Your task to perform on an android device: add a contact in the contacts app Image 0: 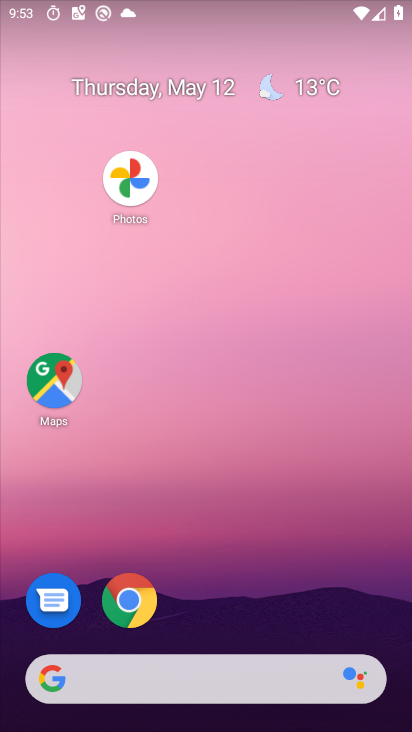
Step 0: press back button
Your task to perform on an android device: add a contact in the contacts app Image 1: 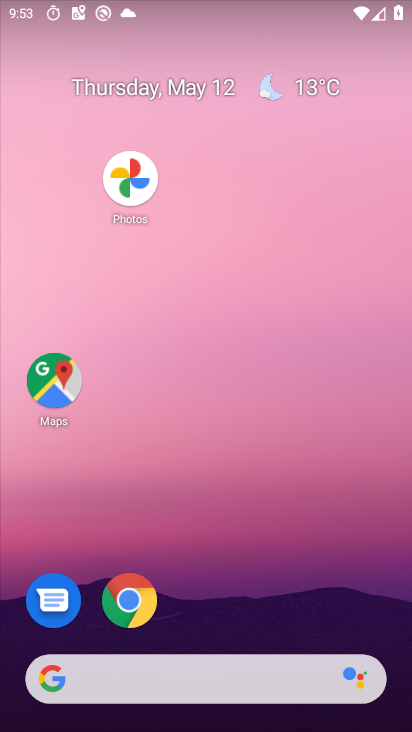
Step 1: click (217, 650)
Your task to perform on an android device: add a contact in the contacts app Image 2: 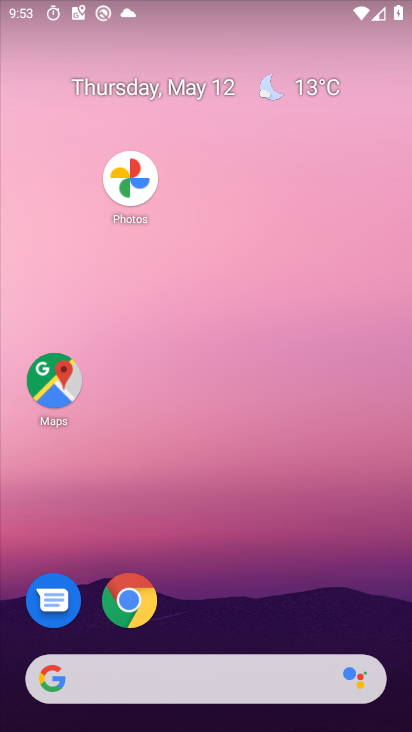
Step 2: click (266, 672)
Your task to perform on an android device: add a contact in the contacts app Image 3: 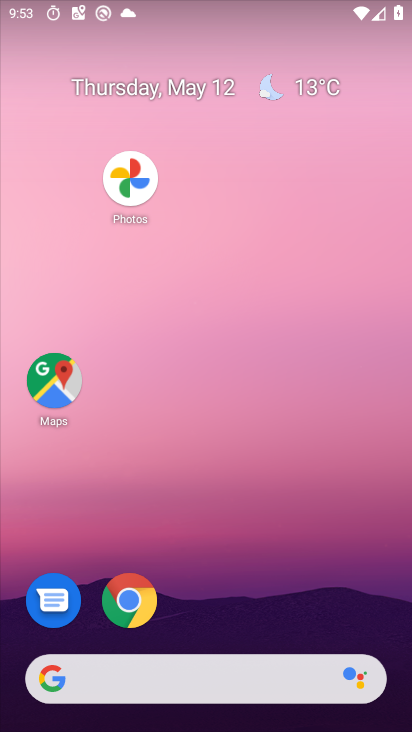
Step 3: press back button
Your task to perform on an android device: add a contact in the contacts app Image 4: 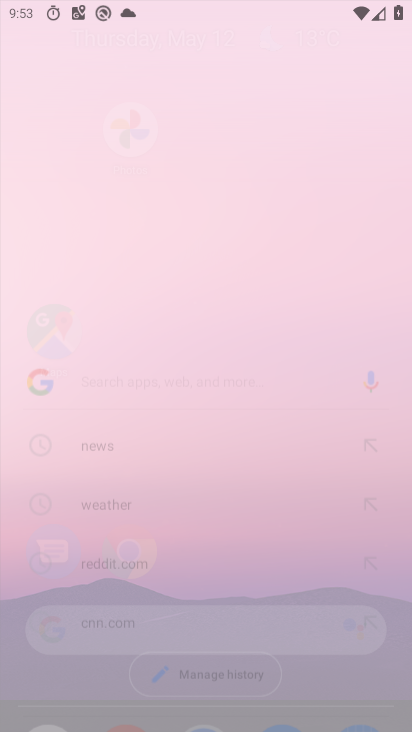
Step 4: press back button
Your task to perform on an android device: add a contact in the contacts app Image 5: 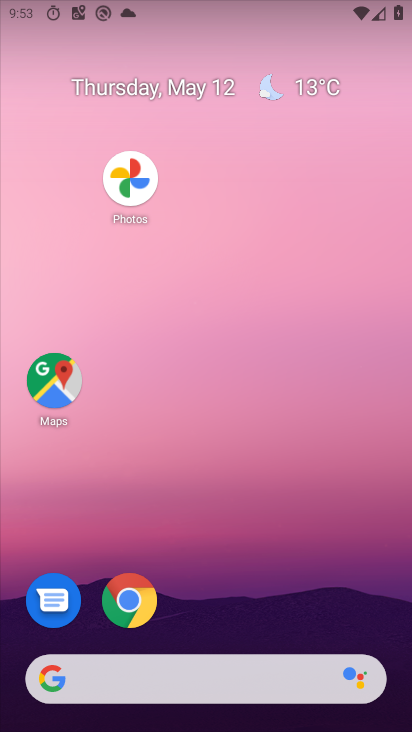
Step 5: press home button
Your task to perform on an android device: add a contact in the contacts app Image 6: 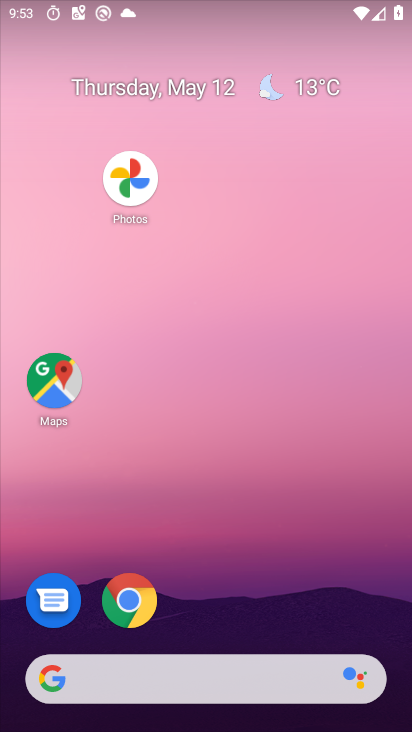
Step 6: press back button
Your task to perform on an android device: add a contact in the contacts app Image 7: 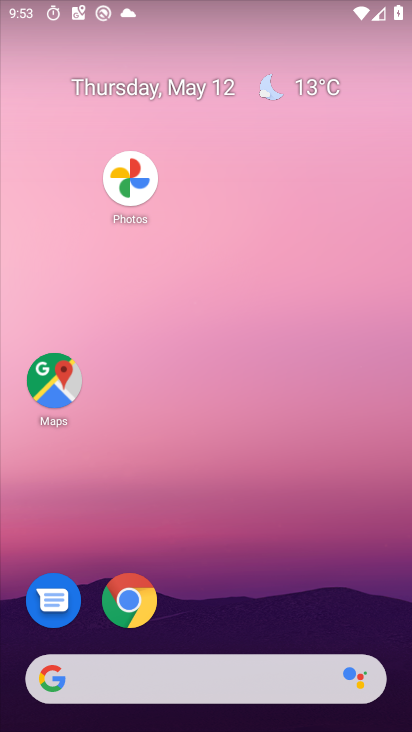
Step 7: click (263, 412)
Your task to perform on an android device: add a contact in the contacts app Image 8: 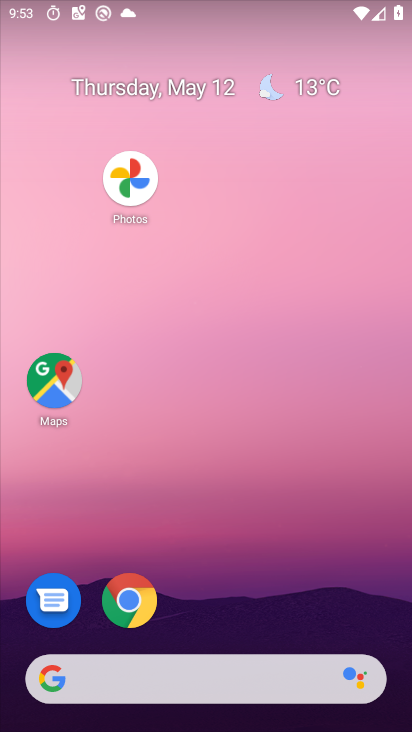
Step 8: drag from (215, 456) to (147, 190)
Your task to perform on an android device: add a contact in the contacts app Image 9: 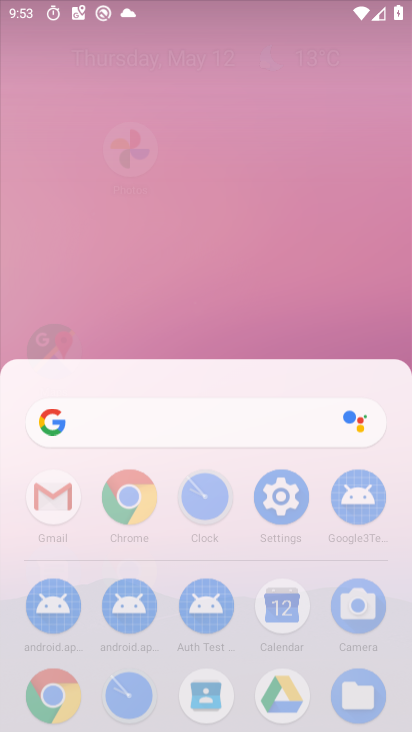
Step 9: drag from (254, 508) to (103, 155)
Your task to perform on an android device: add a contact in the contacts app Image 10: 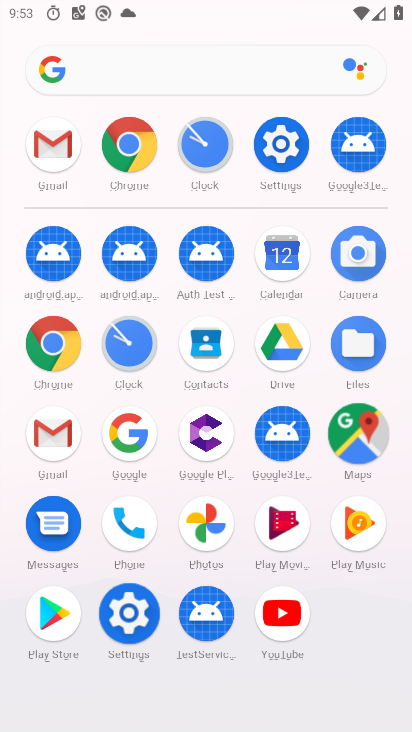
Step 10: click (351, 260)
Your task to perform on an android device: add a contact in the contacts app Image 11: 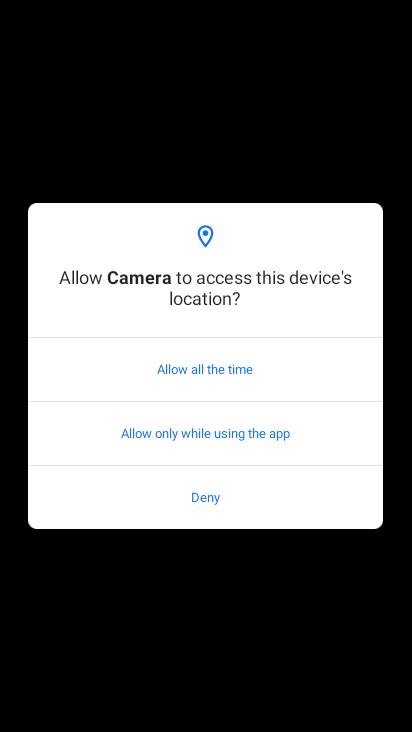
Step 11: press back button
Your task to perform on an android device: add a contact in the contacts app Image 12: 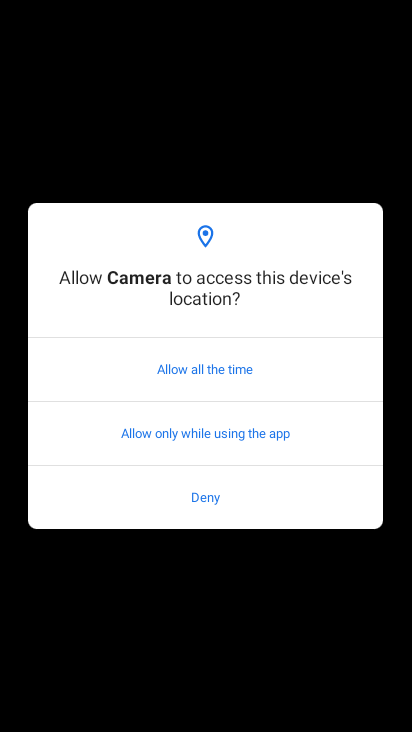
Step 12: press back button
Your task to perform on an android device: add a contact in the contacts app Image 13: 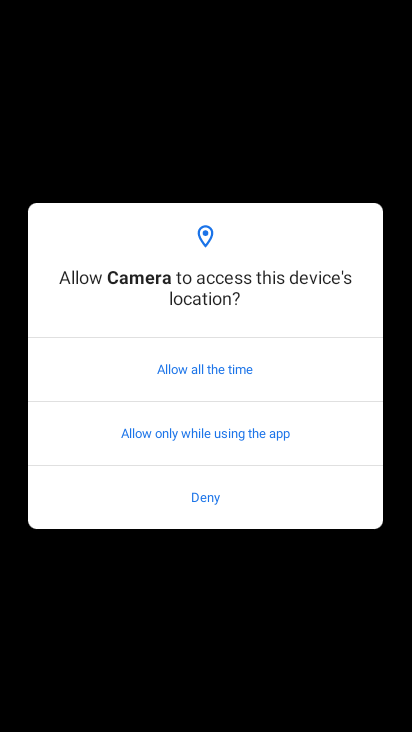
Step 13: press back button
Your task to perform on an android device: add a contact in the contacts app Image 14: 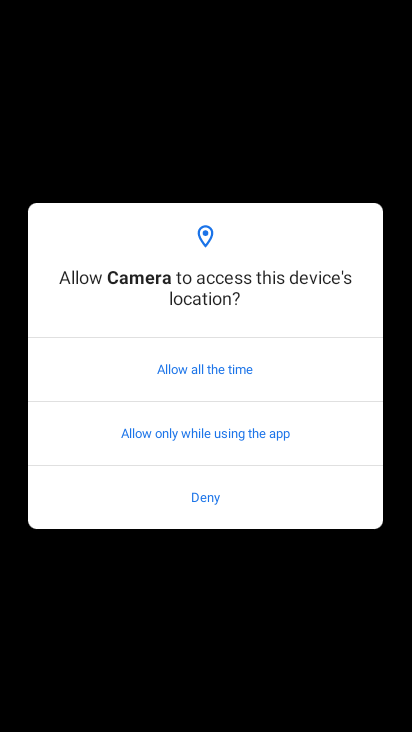
Step 14: press back button
Your task to perform on an android device: add a contact in the contacts app Image 15: 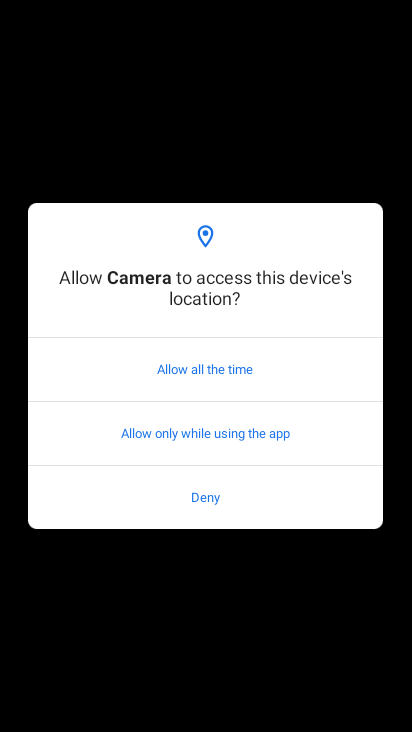
Step 15: press back button
Your task to perform on an android device: add a contact in the contacts app Image 16: 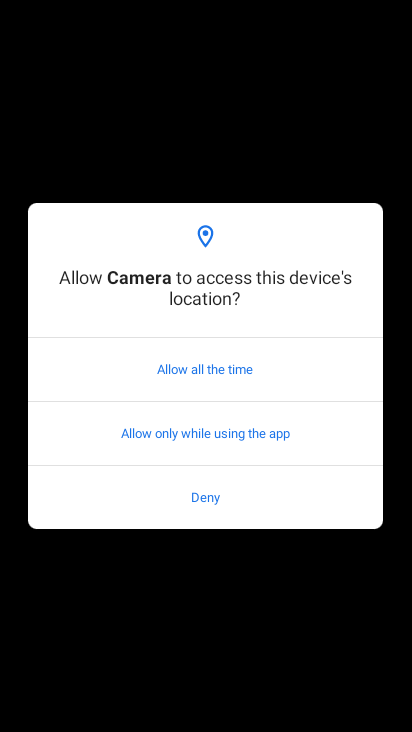
Step 16: press back button
Your task to perform on an android device: add a contact in the contacts app Image 17: 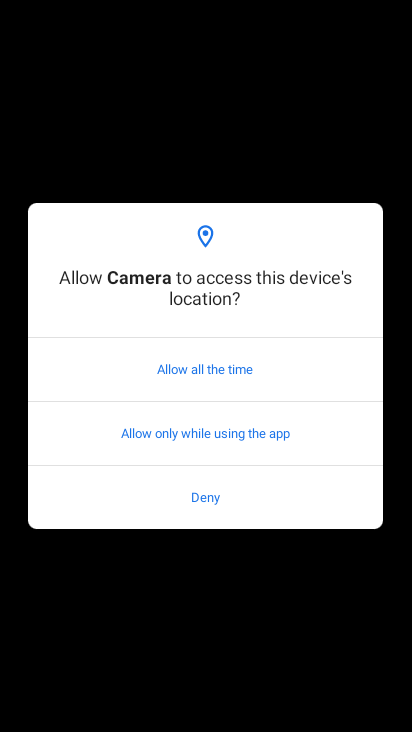
Step 17: press home button
Your task to perform on an android device: add a contact in the contacts app Image 18: 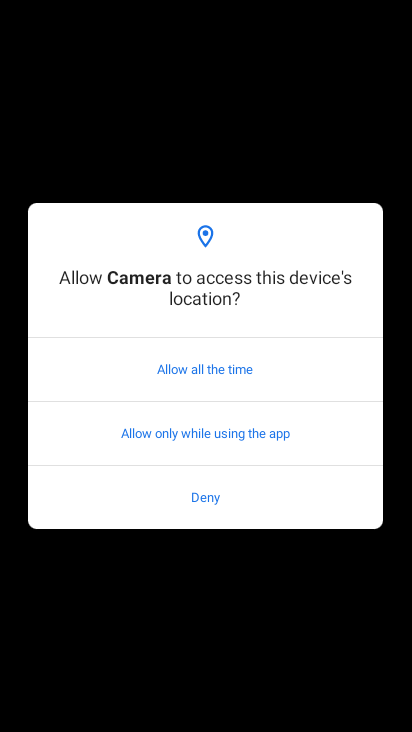
Step 18: press home button
Your task to perform on an android device: add a contact in the contacts app Image 19: 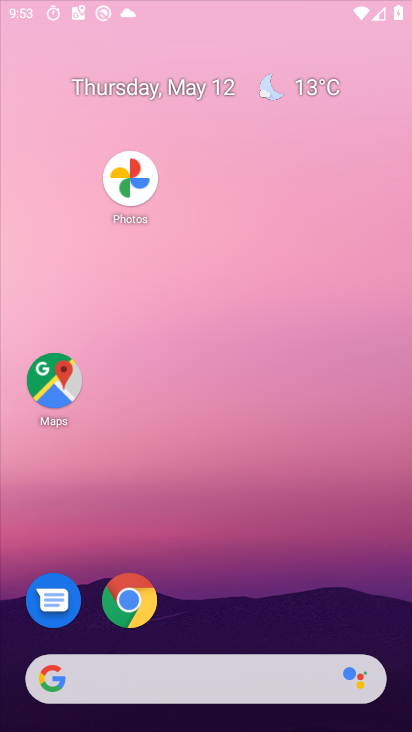
Step 19: press home button
Your task to perform on an android device: add a contact in the contacts app Image 20: 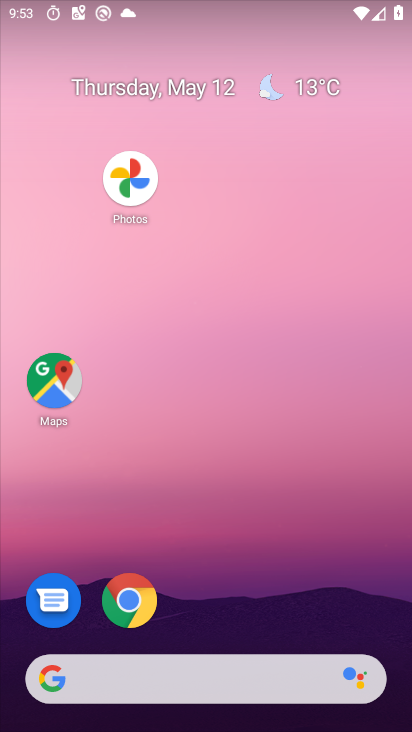
Step 20: drag from (292, 584) to (166, 35)
Your task to perform on an android device: add a contact in the contacts app Image 21: 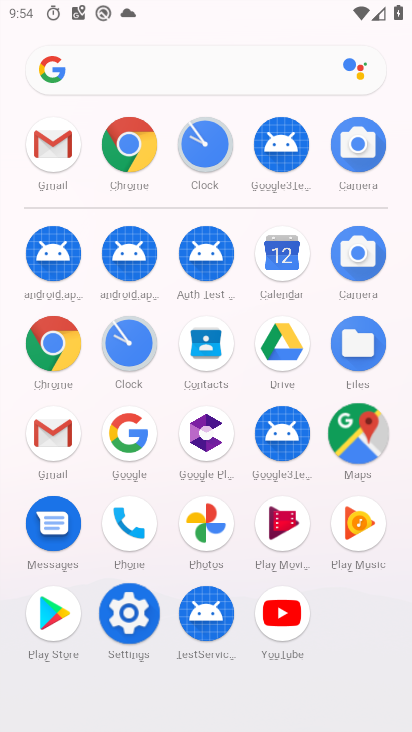
Step 21: click (204, 340)
Your task to perform on an android device: add a contact in the contacts app Image 22: 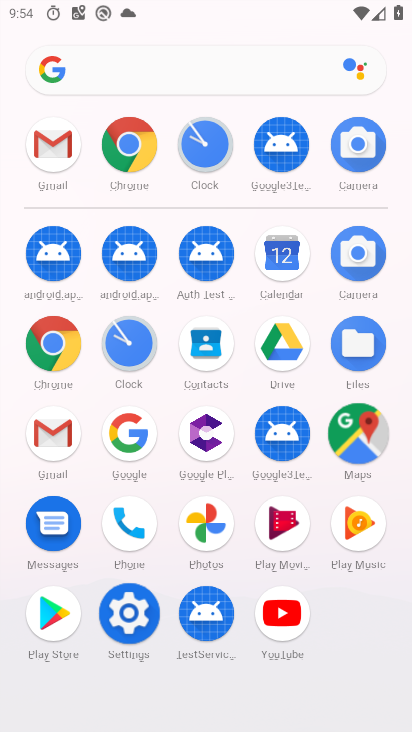
Step 22: click (204, 340)
Your task to perform on an android device: add a contact in the contacts app Image 23: 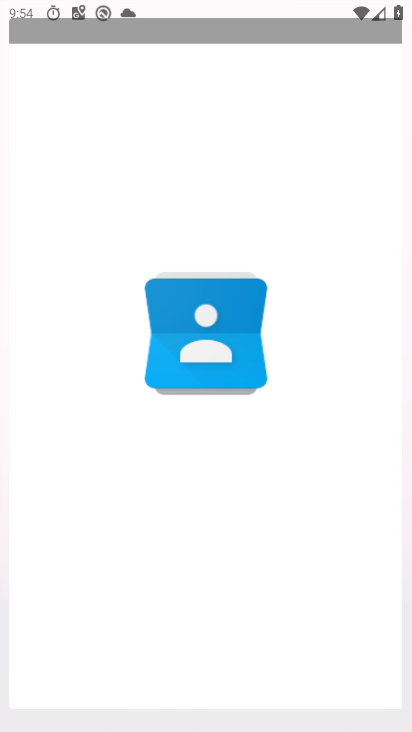
Step 23: click (203, 341)
Your task to perform on an android device: add a contact in the contacts app Image 24: 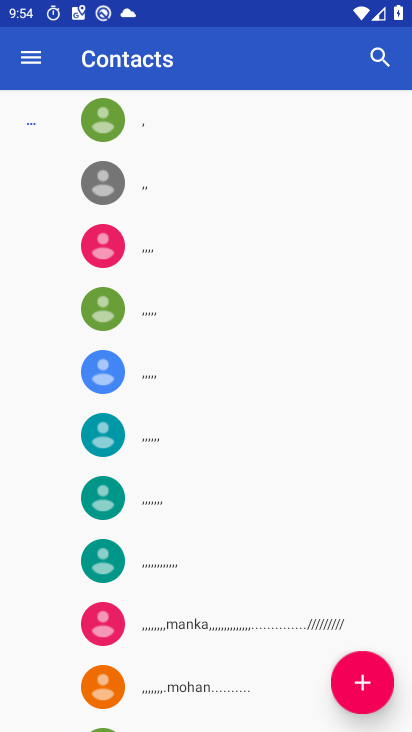
Step 24: click (364, 681)
Your task to perform on an android device: add a contact in the contacts app Image 25: 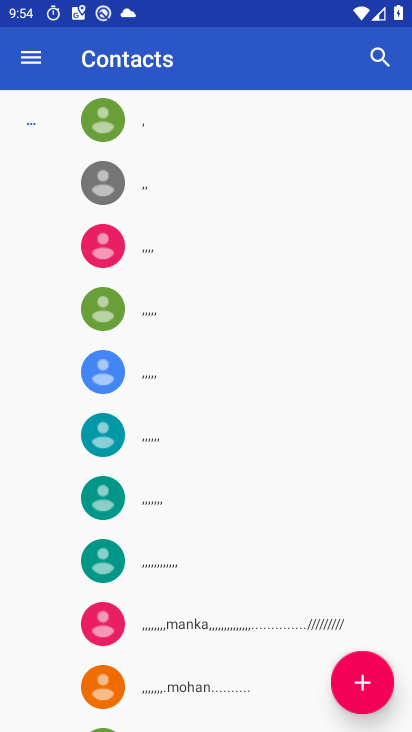
Step 25: click (365, 680)
Your task to perform on an android device: add a contact in the contacts app Image 26: 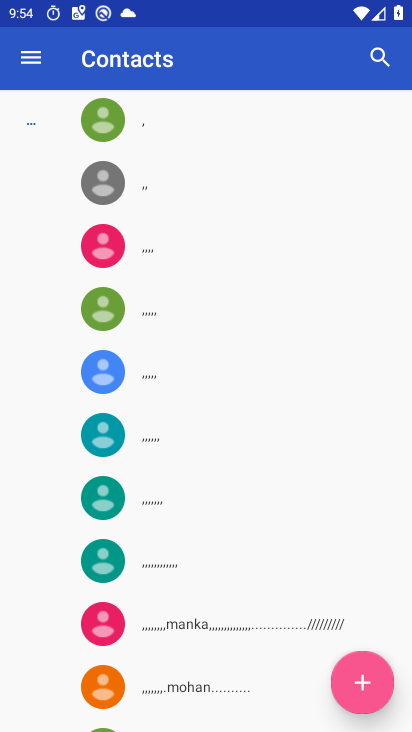
Step 26: click (364, 679)
Your task to perform on an android device: add a contact in the contacts app Image 27: 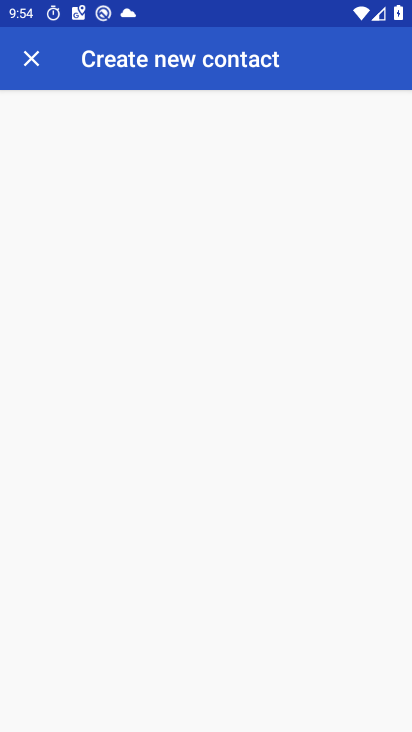
Step 27: click (363, 678)
Your task to perform on an android device: add a contact in the contacts app Image 28: 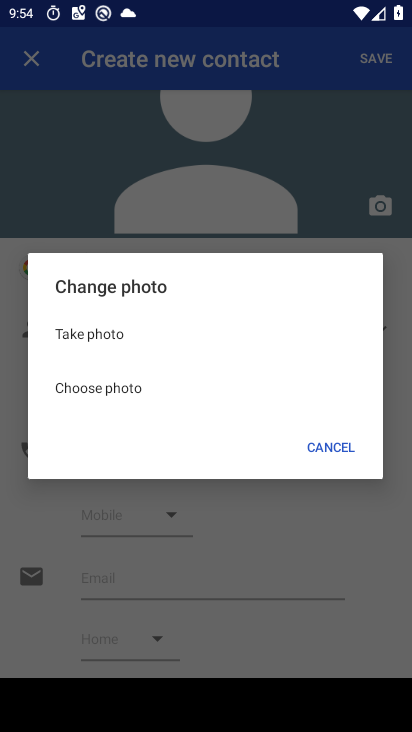
Step 28: click (362, 682)
Your task to perform on an android device: add a contact in the contacts app Image 29: 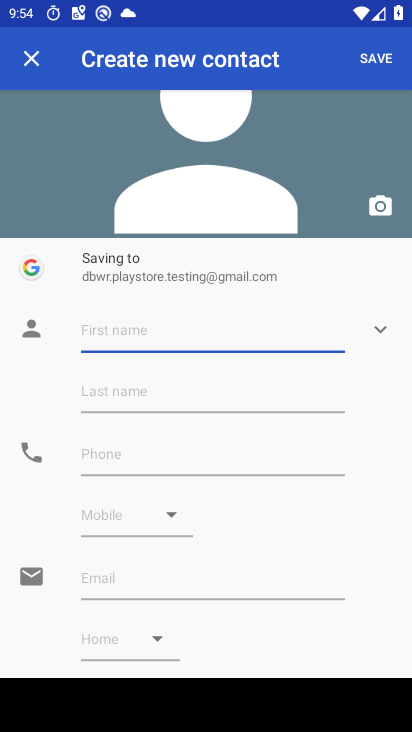
Step 29: type "guysyguau"
Your task to perform on an android device: add a contact in the contacts app Image 30: 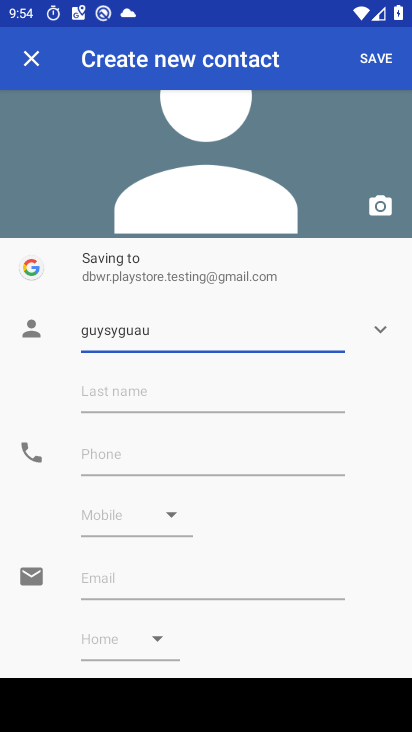
Step 30: click (105, 455)
Your task to perform on an android device: add a contact in the contacts app Image 31: 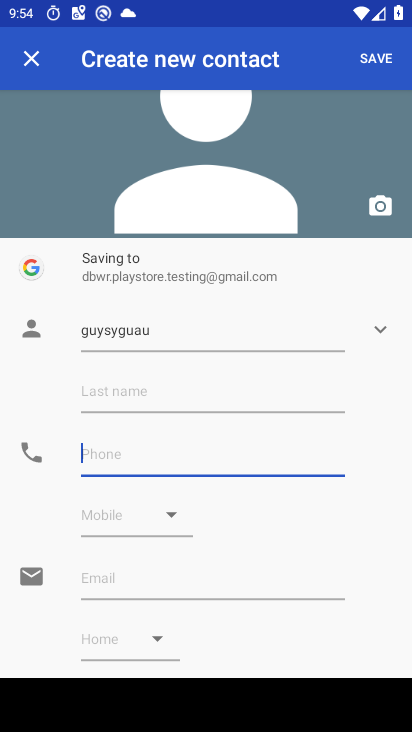
Step 31: type "6897379837r2339"
Your task to perform on an android device: add a contact in the contacts app Image 32: 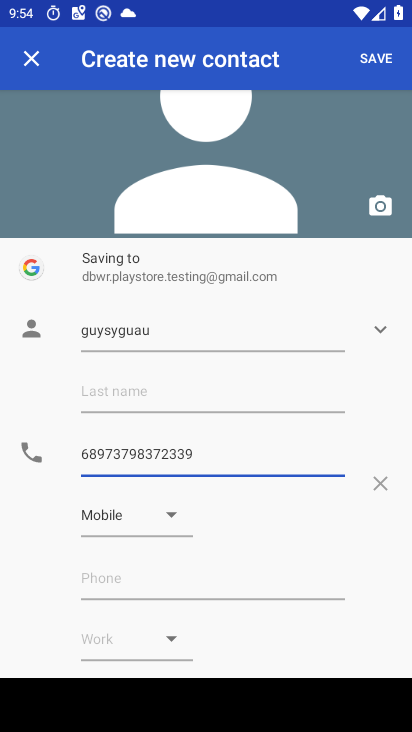
Step 32: click (379, 59)
Your task to perform on an android device: add a contact in the contacts app Image 33: 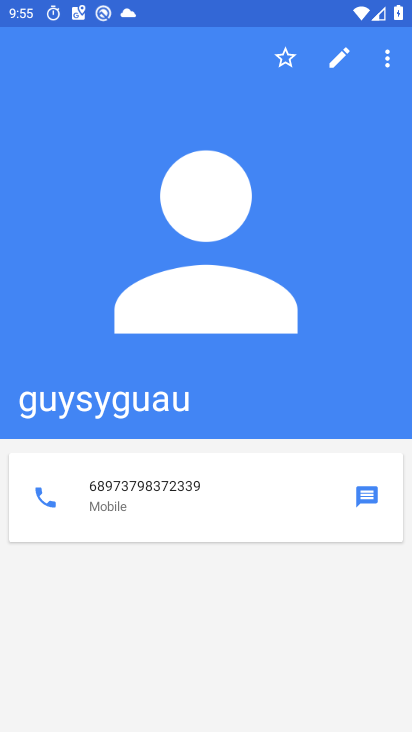
Step 33: task complete